Your task to perform on an android device: open a bookmark in the chrome app Image 0: 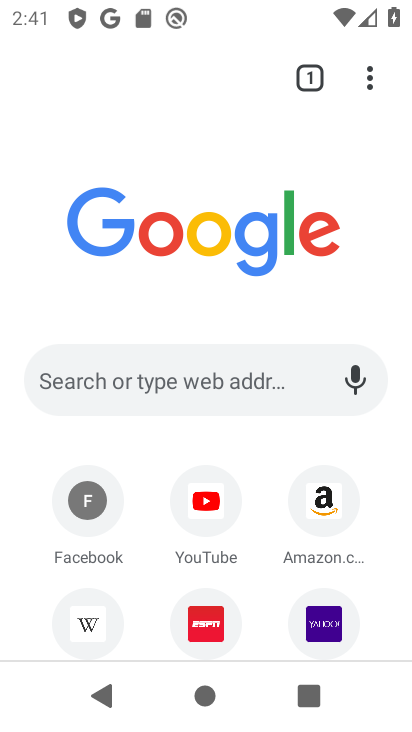
Step 0: drag from (381, 88) to (305, 313)
Your task to perform on an android device: open a bookmark in the chrome app Image 1: 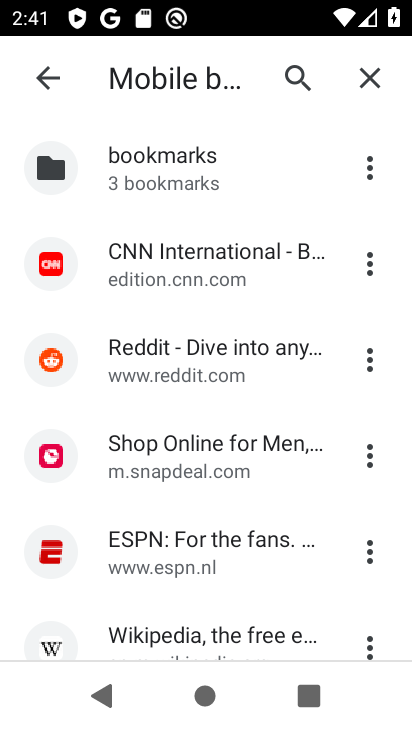
Step 1: click (174, 630)
Your task to perform on an android device: open a bookmark in the chrome app Image 2: 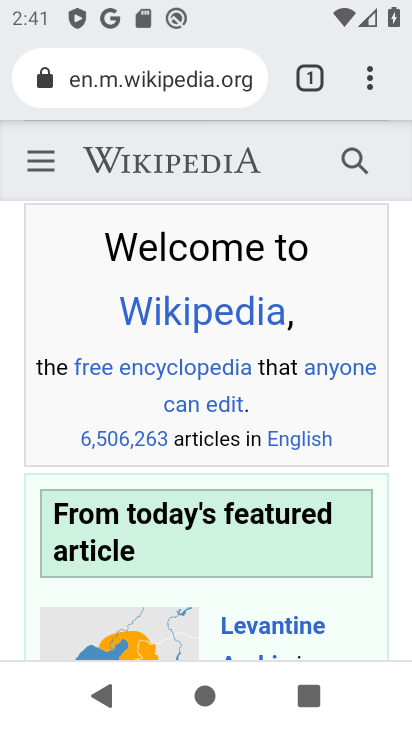
Step 2: task complete